Your task to perform on an android device: Open the phone app and click the voicemail tab. Image 0: 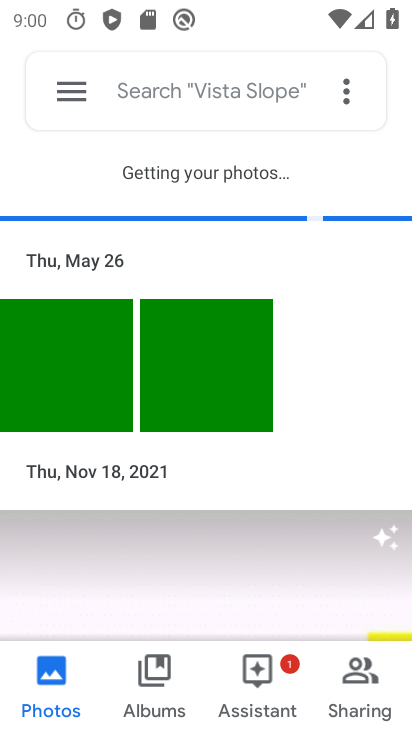
Step 0: press home button
Your task to perform on an android device: Open the phone app and click the voicemail tab. Image 1: 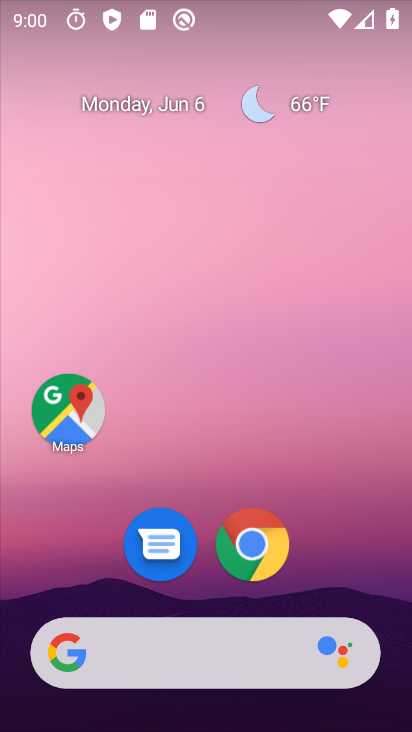
Step 1: drag from (330, 591) to (354, 227)
Your task to perform on an android device: Open the phone app and click the voicemail tab. Image 2: 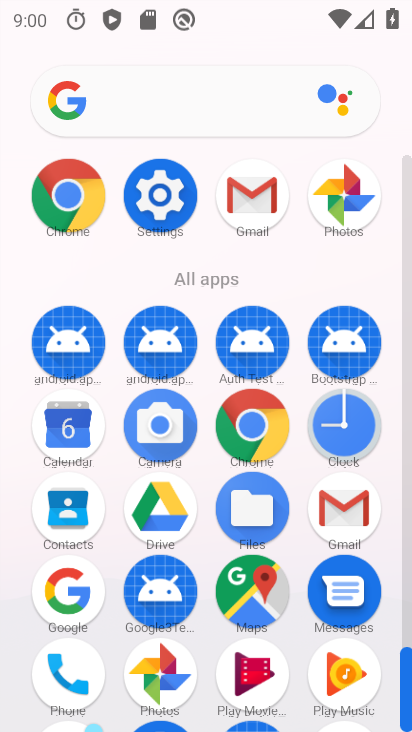
Step 2: drag from (398, 554) to (398, 400)
Your task to perform on an android device: Open the phone app and click the voicemail tab. Image 3: 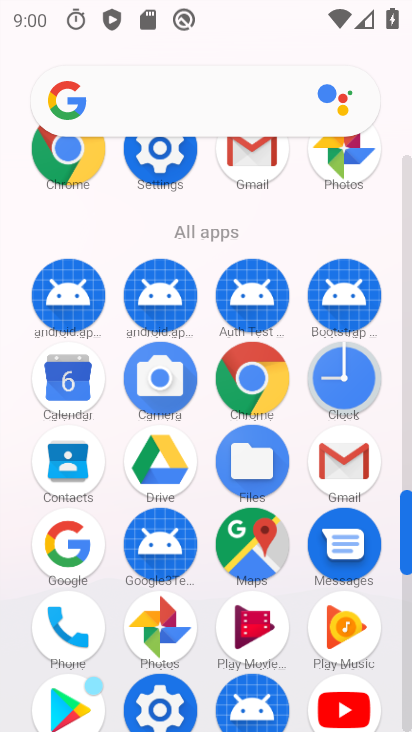
Step 3: click (57, 605)
Your task to perform on an android device: Open the phone app and click the voicemail tab. Image 4: 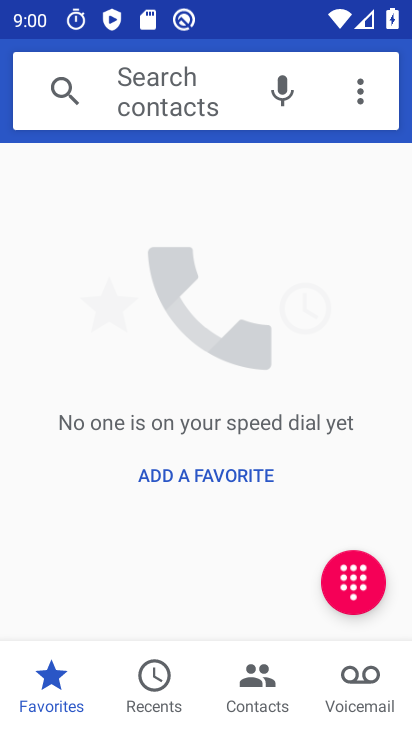
Step 4: click (376, 706)
Your task to perform on an android device: Open the phone app and click the voicemail tab. Image 5: 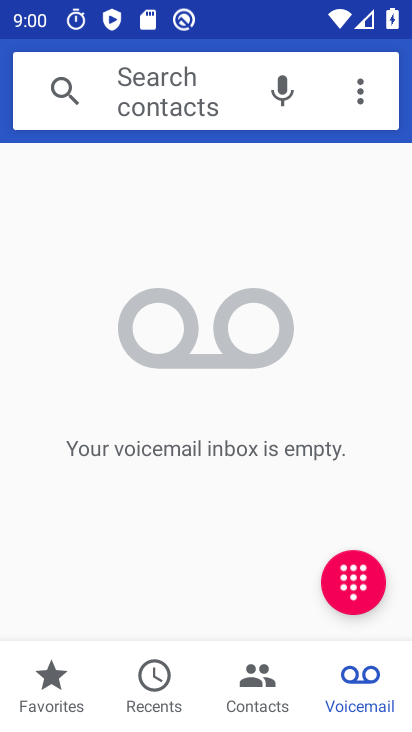
Step 5: task complete